Your task to perform on an android device: change the clock display to show seconds Image 0: 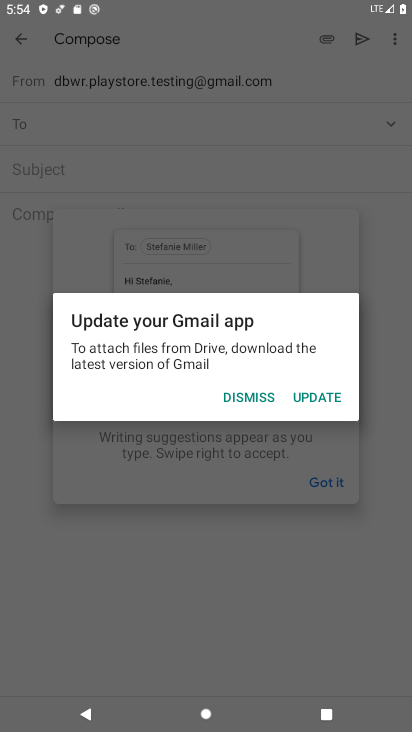
Step 0: press home button
Your task to perform on an android device: change the clock display to show seconds Image 1: 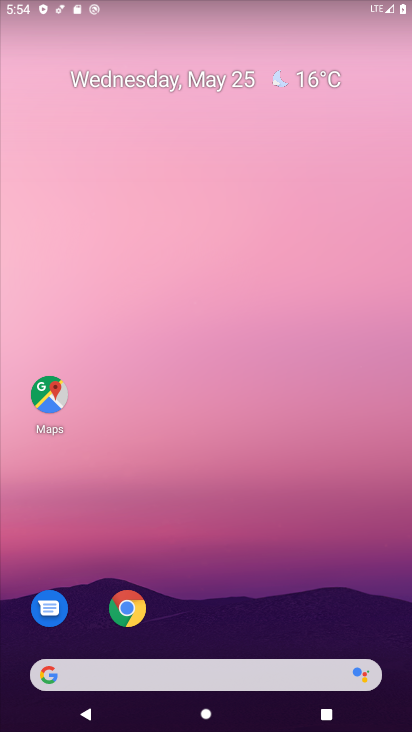
Step 1: drag from (299, 641) to (318, 2)
Your task to perform on an android device: change the clock display to show seconds Image 2: 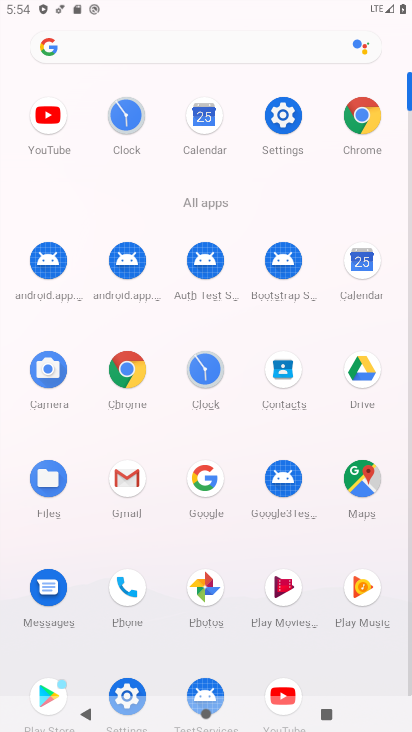
Step 2: click (208, 367)
Your task to perform on an android device: change the clock display to show seconds Image 3: 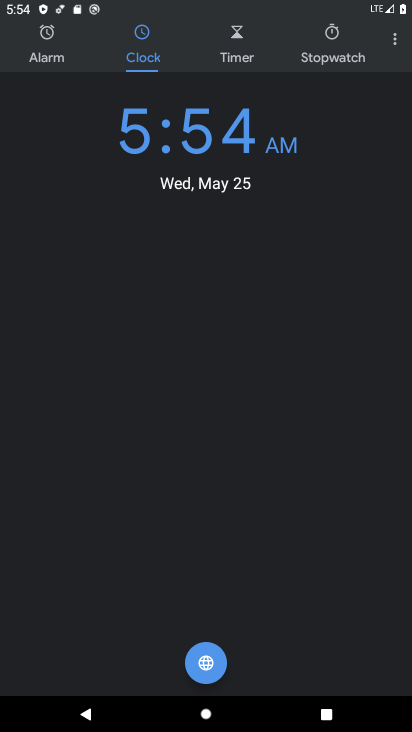
Step 3: click (390, 46)
Your task to perform on an android device: change the clock display to show seconds Image 4: 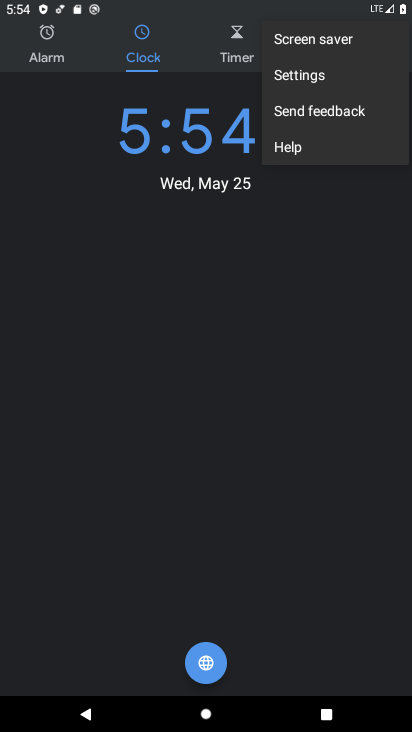
Step 4: click (336, 78)
Your task to perform on an android device: change the clock display to show seconds Image 5: 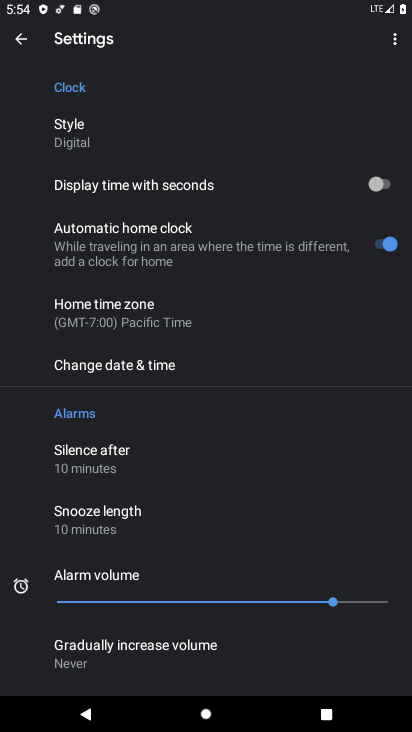
Step 5: click (386, 184)
Your task to perform on an android device: change the clock display to show seconds Image 6: 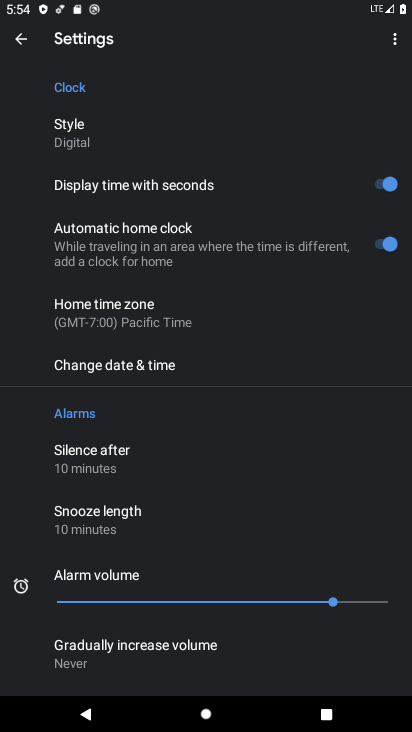
Step 6: task complete